Your task to perform on an android device: show emergency info Image 0: 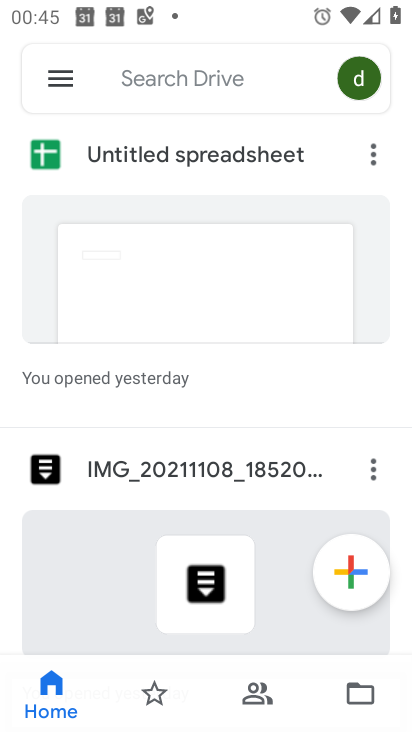
Step 0: press home button
Your task to perform on an android device: show emergency info Image 1: 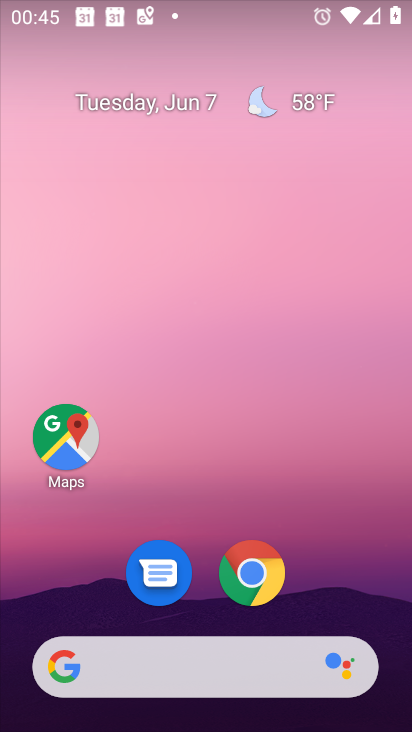
Step 1: drag from (359, 539) to (304, 129)
Your task to perform on an android device: show emergency info Image 2: 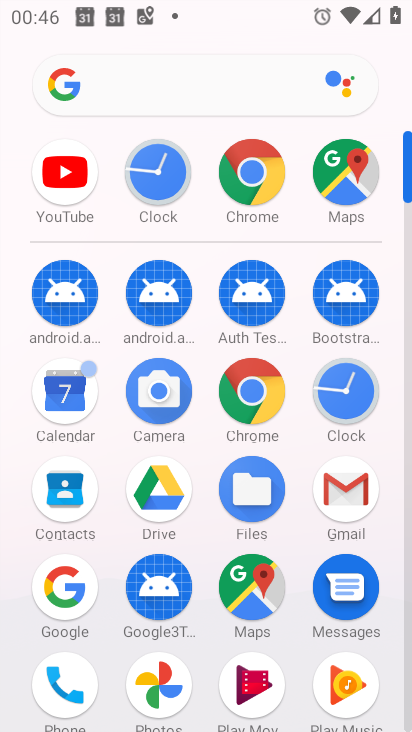
Step 2: click (310, 519)
Your task to perform on an android device: show emergency info Image 3: 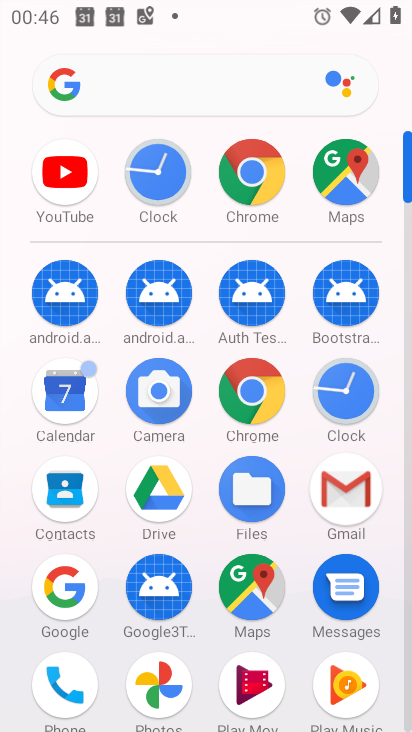
Step 3: click (213, 3)
Your task to perform on an android device: show emergency info Image 4: 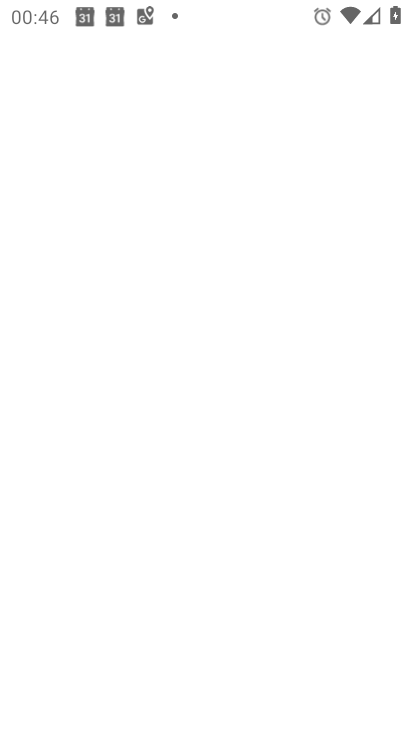
Step 4: press home button
Your task to perform on an android device: show emergency info Image 5: 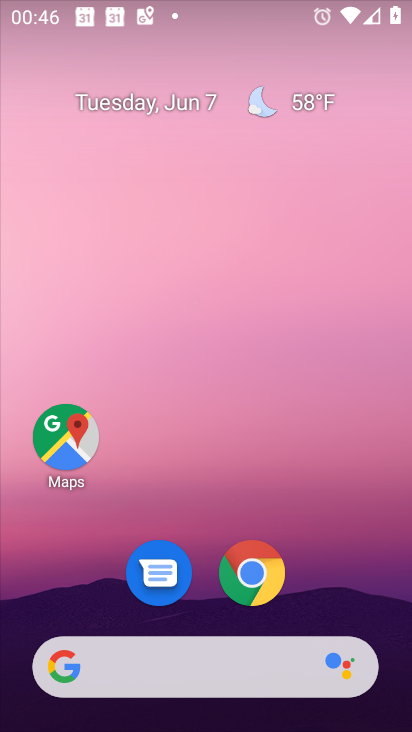
Step 5: drag from (368, 464) to (302, 0)
Your task to perform on an android device: show emergency info Image 6: 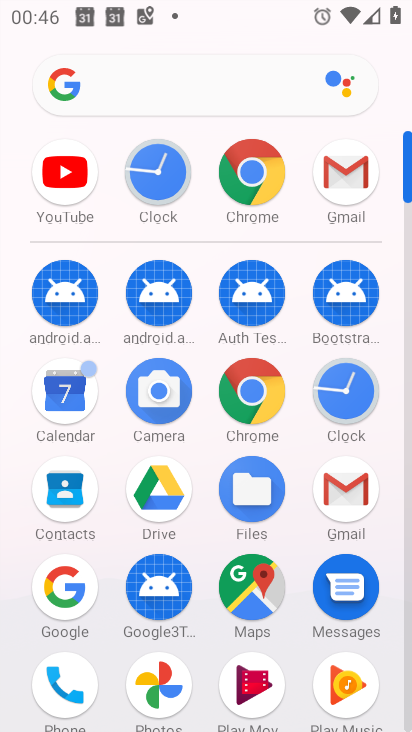
Step 6: click (406, 727)
Your task to perform on an android device: show emergency info Image 7: 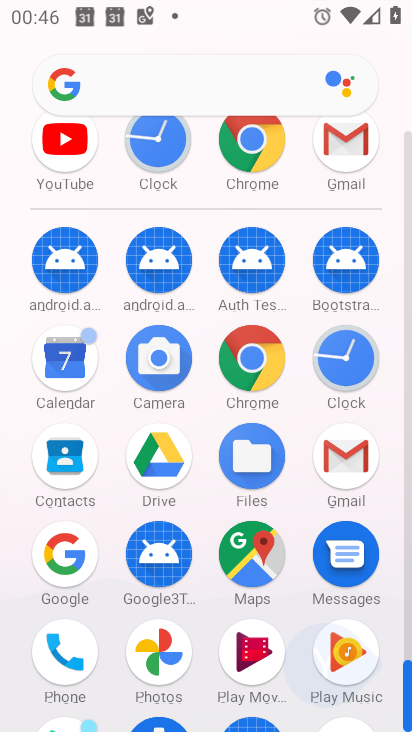
Step 7: click (406, 727)
Your task to perform on an android device: show emergency info Image 8: 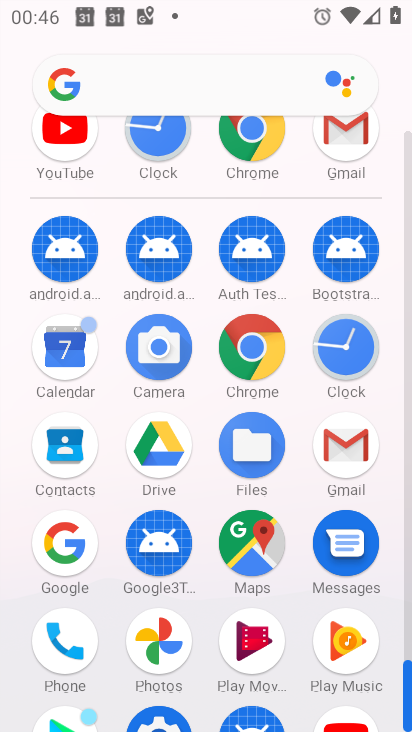
Step 8: click (172, 717)
Your task to perform on an android device: show emergency info Image 9: 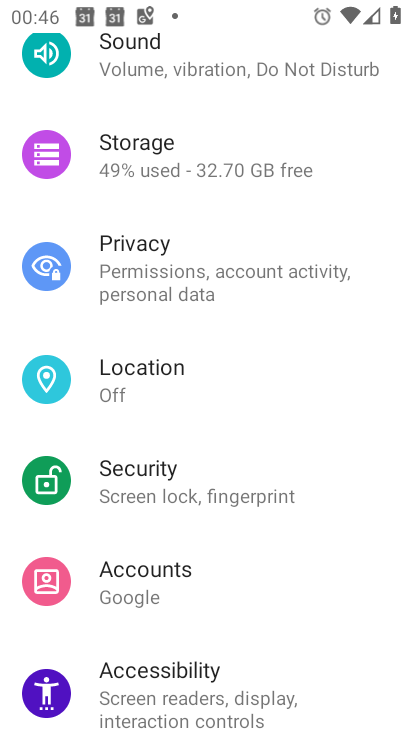
Step 9: drag from (258, 598) to (253, 82)
Your task to perform on an android device: show emergency info Image 10: 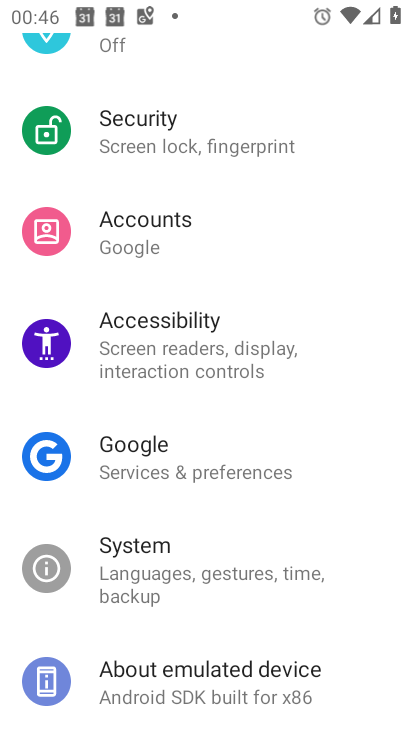
Step 10: click (211, 668)
Your task to perform on an android device: show emergency info Image 11: 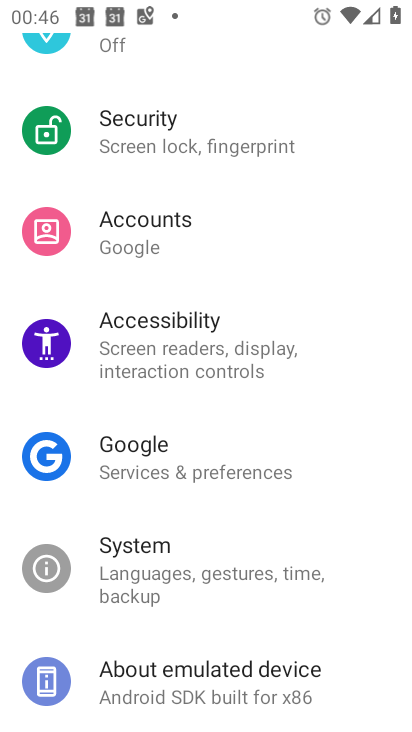
Step 11: click (224, 685)
Your task to perform on an android device: show emergency info Image 12: 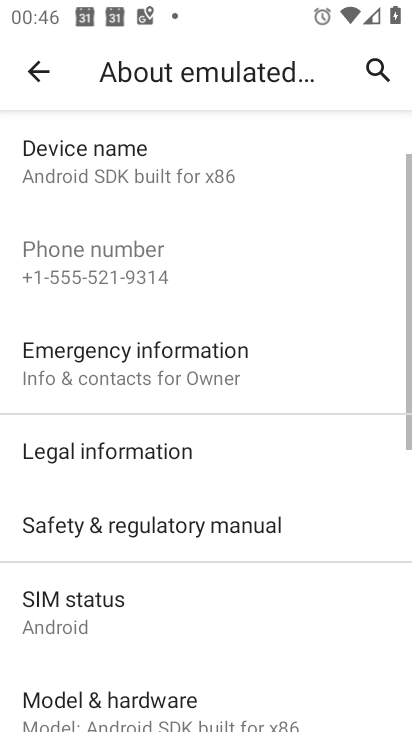
Step 12: click (225, 335)
Your task to perform on an android device: show emergency info Image 13: 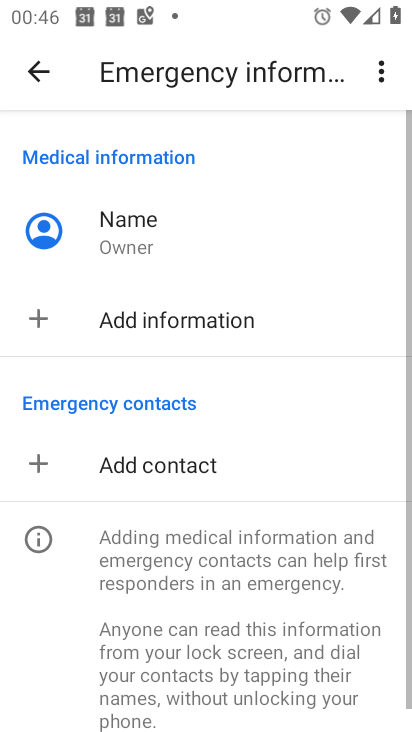
Step 13: task complete